Your task to perform on an android device: Go to sound settings Image 0: 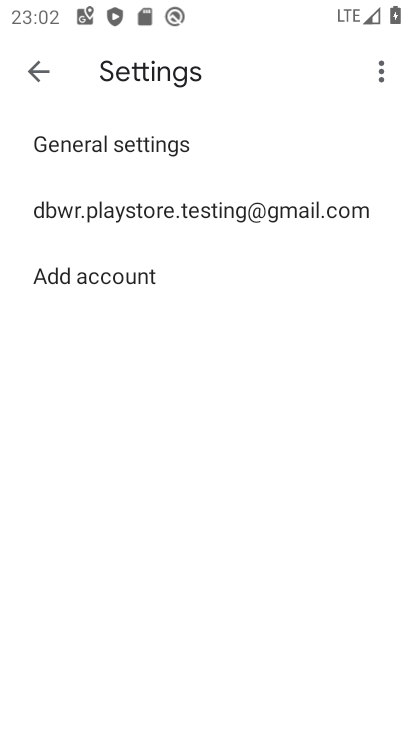
Step 0: press home button
Your task to perform on an android device: Go to sound settings Image 1: 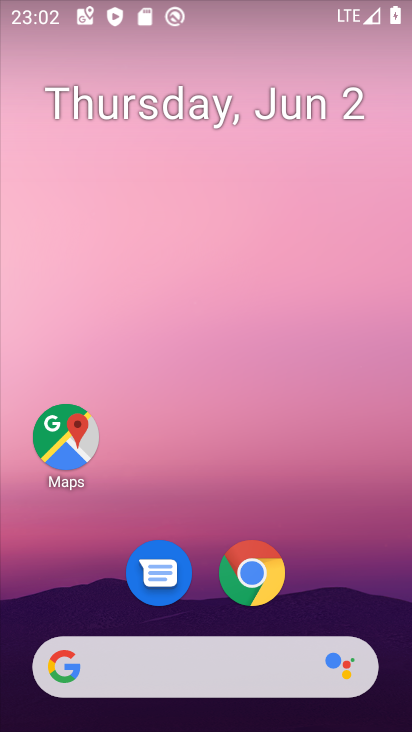
Step 1: drag from (333, 599) to (312, 130)
Your task to perform on an android device: Go to sound settings Image 2: 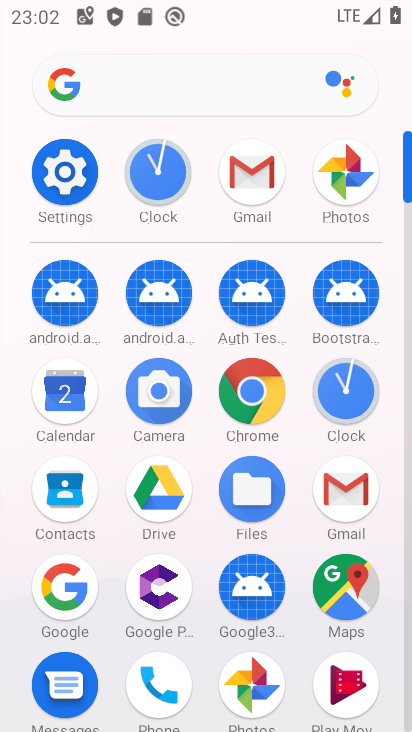
Step 2: click (79, 181)
Your task to perform on an android device: Go to sound settings Image 3: 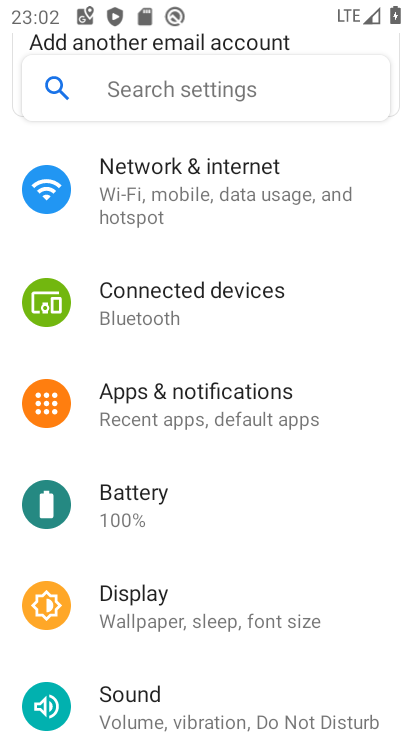
Step 3: click (294, 690)
Your task to perform on an android device: Go to sound settings Image 4: 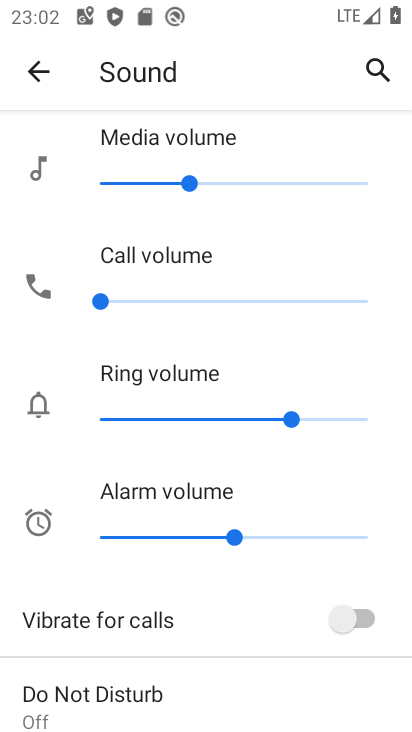
Step 4: task complete